Your task to perform on an android device: Open the calendar app, open the side menu, and click the "Day" option Image 0: 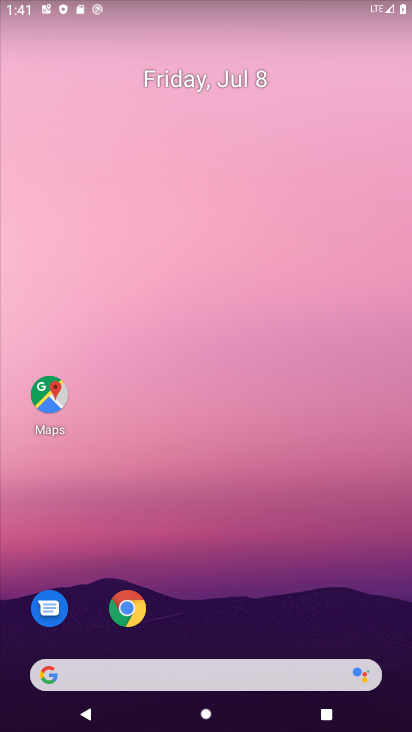
Step 0: drag from (383, 631) to (331, 79)
Your task to perform on an android device: Open the calendar app, open the side menu, and click the "Day" option Image 1: 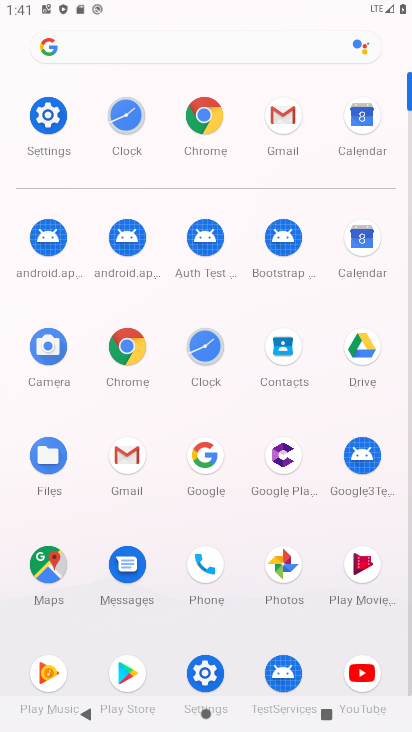
Step 1: click (361, 237)
Your task to perform on an android device: Open the calendar app, open the side menu, and click the "Day" option Image 2: 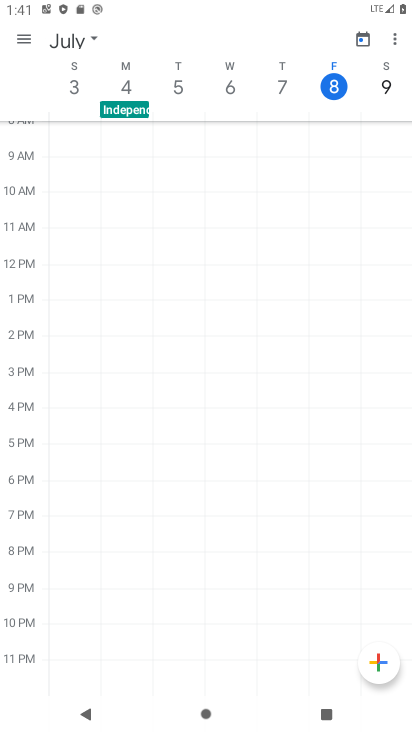
Step 2: click (26, 42)
Your task to perform on an android device: Open the calendar app, open the side menu, and click the "Day" option Image 3: 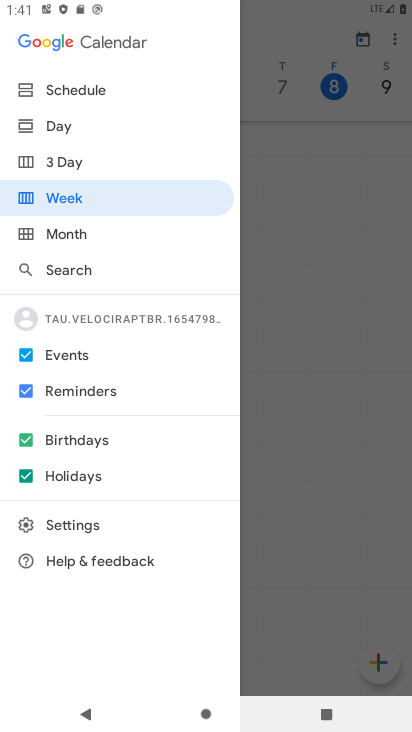
Step 3: click (51, 126)
Your task to perform on an android device: Open the calendar app, open the side menu, and click the "Day" option Image 4: 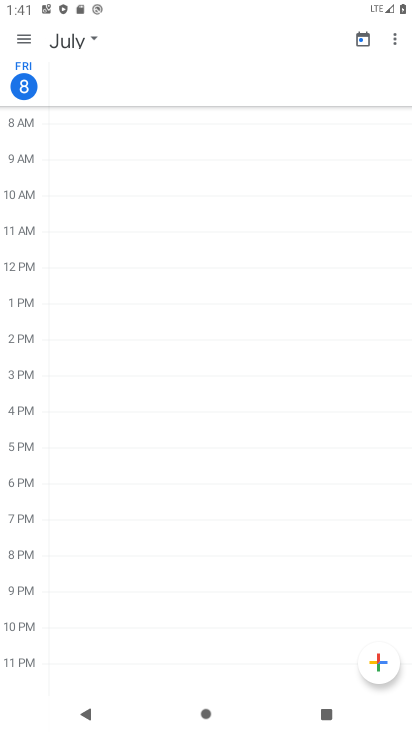
Step 4: task complete